Your task to perform on an android device: change timer sound Image 0: 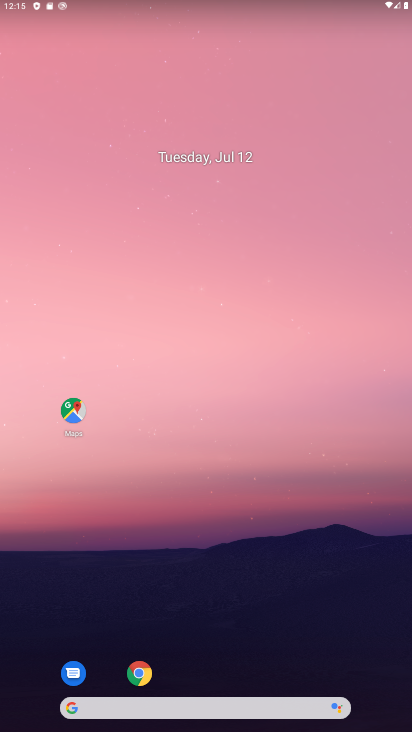
Step 0: drag from (233, 617) to (192, 82)
Your task to perform on an android device: change timer sound Image 1: 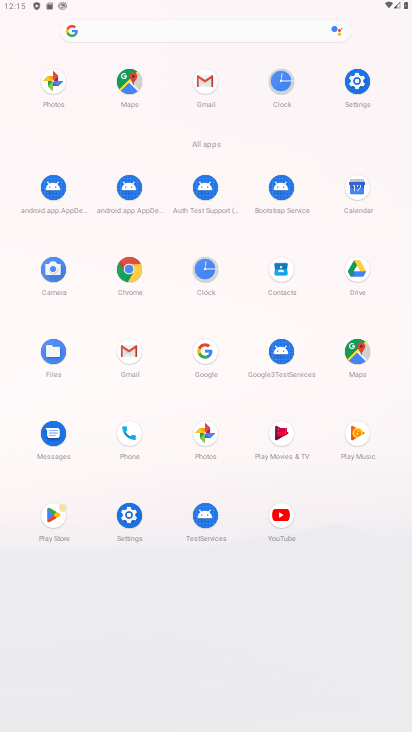
Step 1: click (286, 89)
Your task to perform on an android device: change timer sound Image 2: 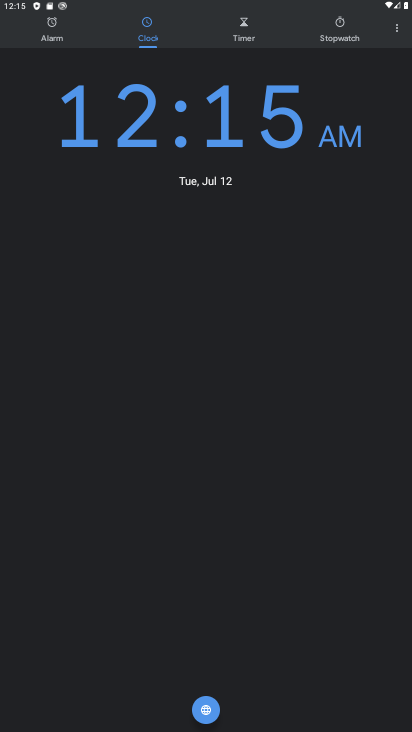
Step 2: click (399, 32)
Your task to perform on an android device: change timer sound Image 3: 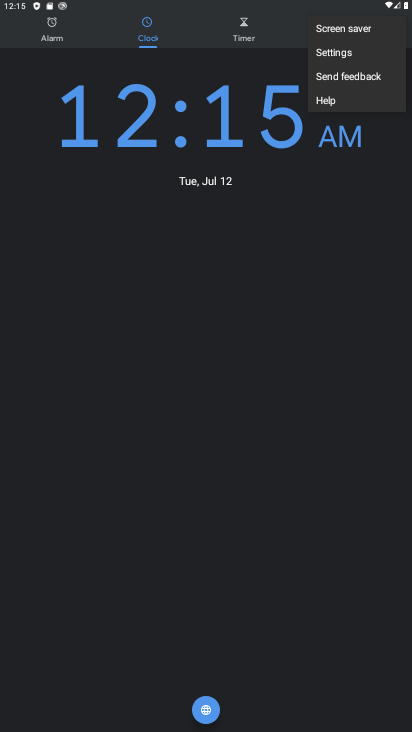
Step 3: click (359, 56)
Your task to perform on an android device: change timer sound Image 4: 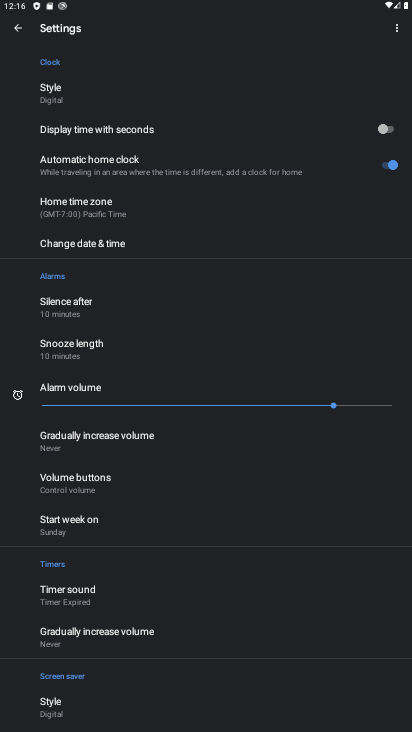
Step 4: click (129, 595)
Your task to perform on an android device: change timer sound Image 5: 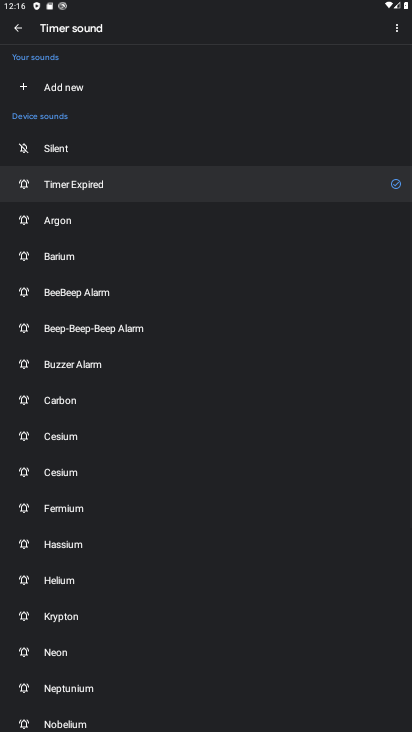
Step 5: click (170, 222)
Your task to perform on an android device: change timer sound Image 6: 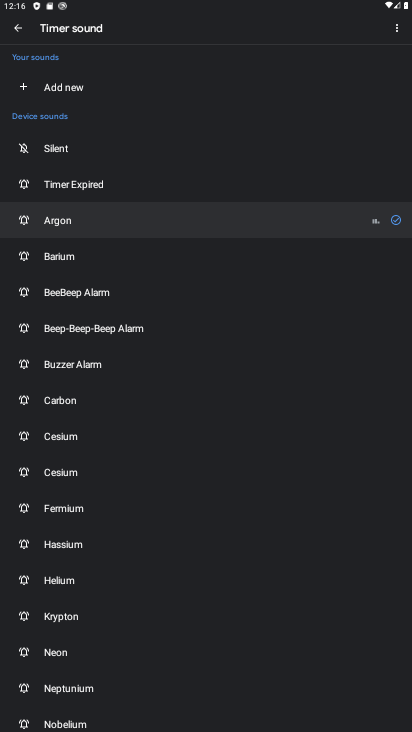
Step 6: task complete